Your task to perform on an android device: Open Youtube and go to "Your channel" Image 0: 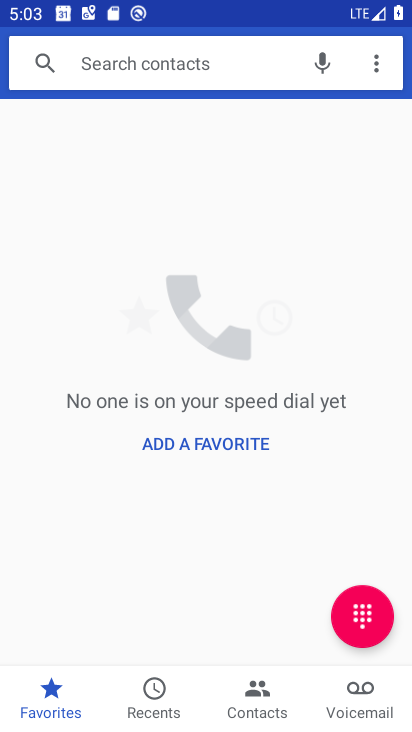
Step 0: press home button
Your task to perform on an android device: Open Youtube and go to "Your channel" Image 1: 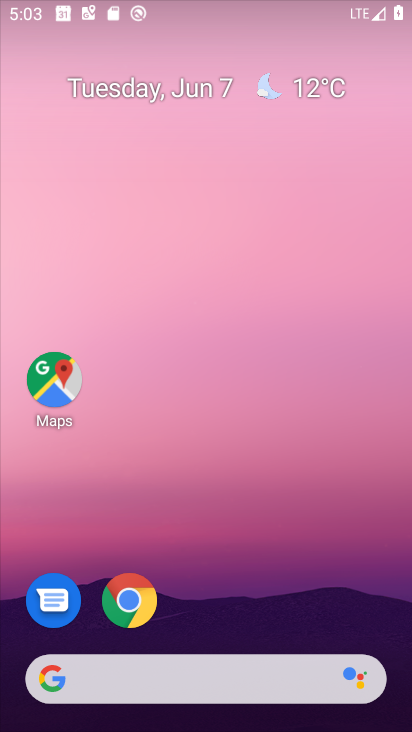
Step 1: drag from (307, 573) to (294, 102)
Your task to perform on an android device: Open Youtube and go to "Your channel" Image 2: 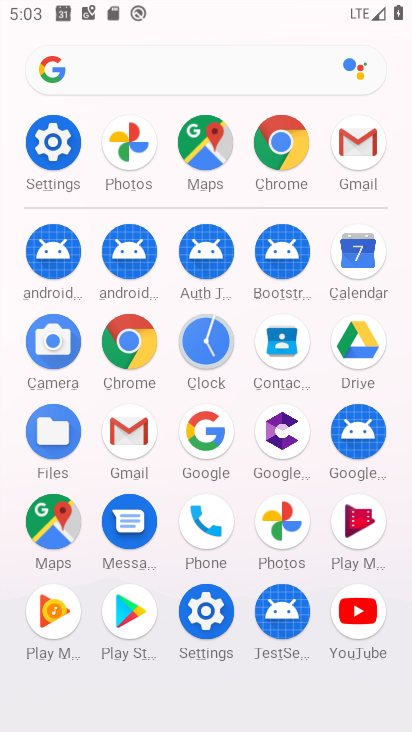
Step 2: click (349, 609)
Your task to perform on an android device: Open Youtube and go to "Your channel" Image 3: 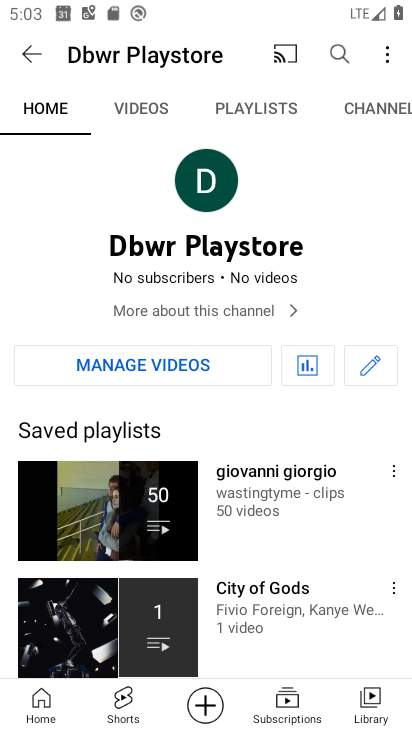
Step 3: task complete